Your task to perform on an android device: set the timer Image 0: 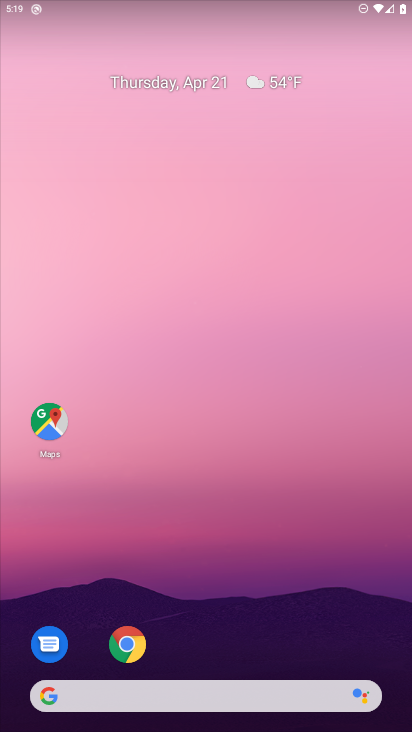
Step 0: drag from (211, 676) to (269, 322)
Your task to perform on an android device: set the timer Image 1: 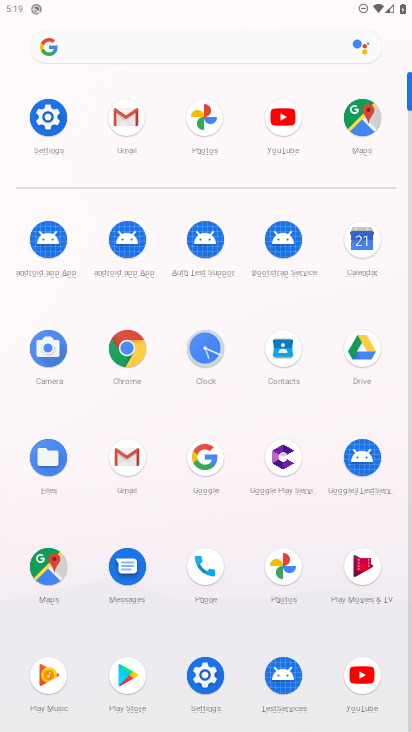
Step 1: click (207, 354)
Your task to perform on an android device: set the timer Image 2: 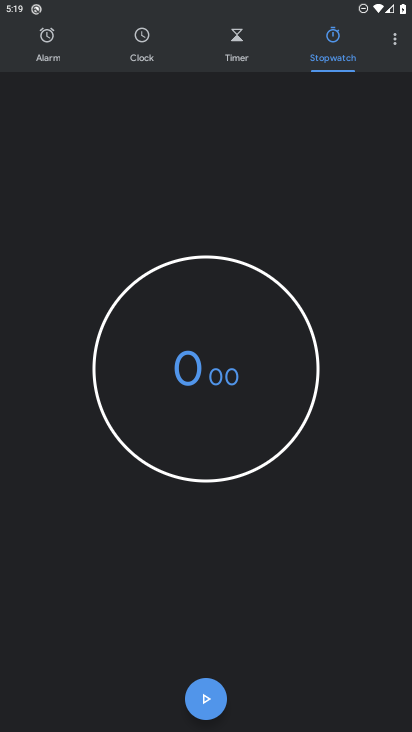
Step 2: click (234, 53)
Your task to perform on an android device: set the timer Image 3: 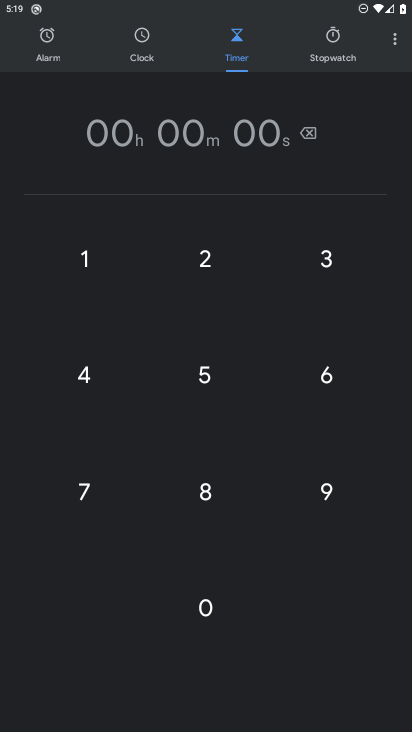
Step 3: click (208, 611)
Your task to perform on an android device: set the timer Image 4: 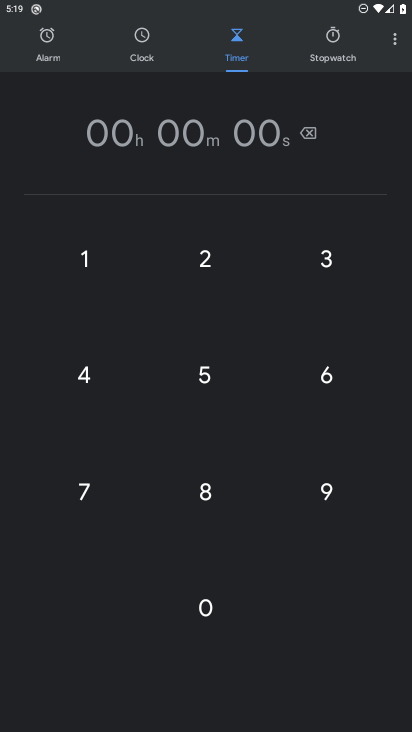
Step 4: click (326, 495)
Your task to perform on an android device: set the timer Image 5: 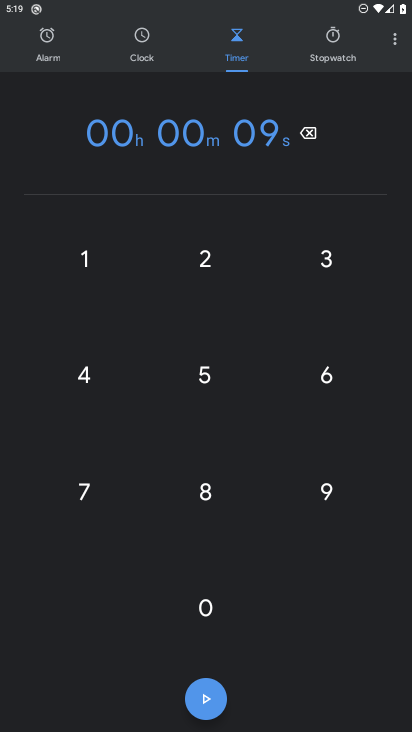
Step 5: click (212, 603)
Your task to perform on an android device: set the timer Image 6: 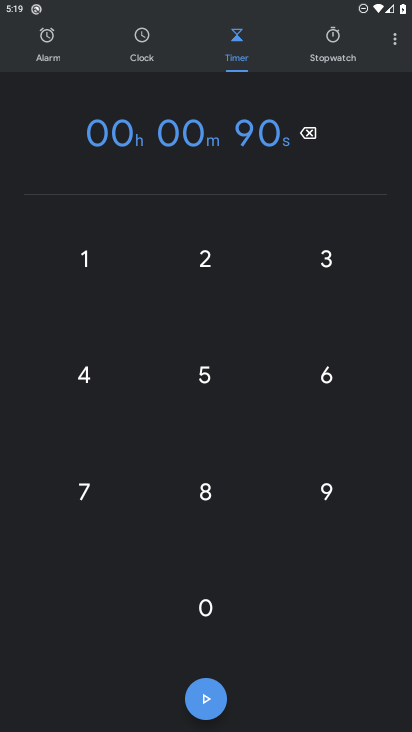
Step 6: click (209, 371)
Your task to perform on an android device: set the timer Image 7: 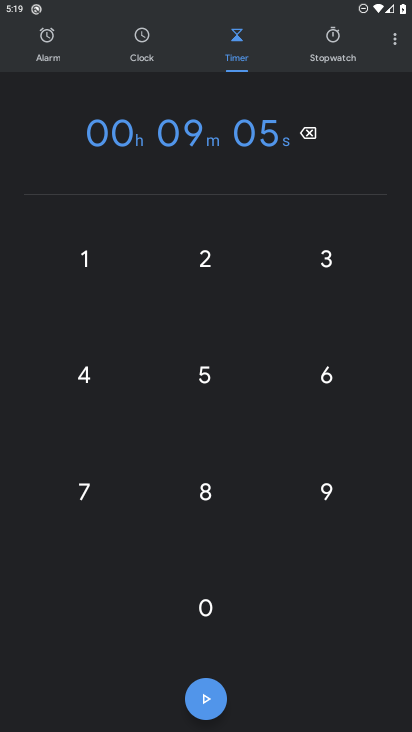
Step 7: click (207, 706)
Your task to perform on an android device: set the timer Image 8: 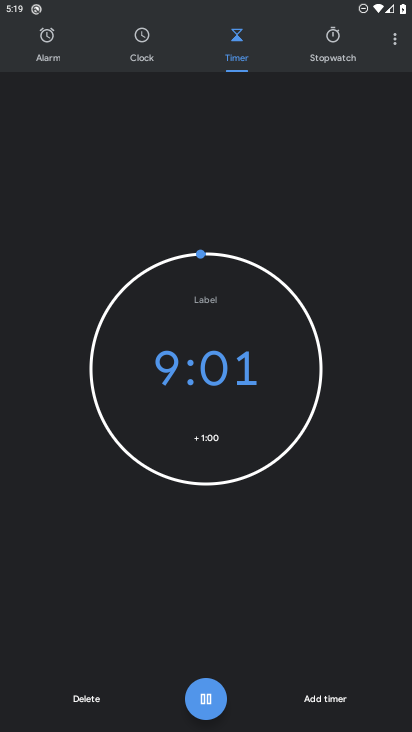
Step 8: task complete